Your task to perform on an android device: find photos in the google photos app Image 0: 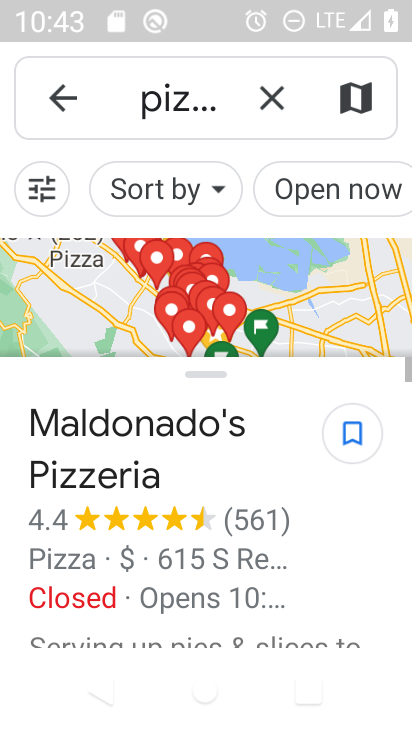
Step 0: press home button
Your task to perform on an android device: find photos in the google photos app Image 1: 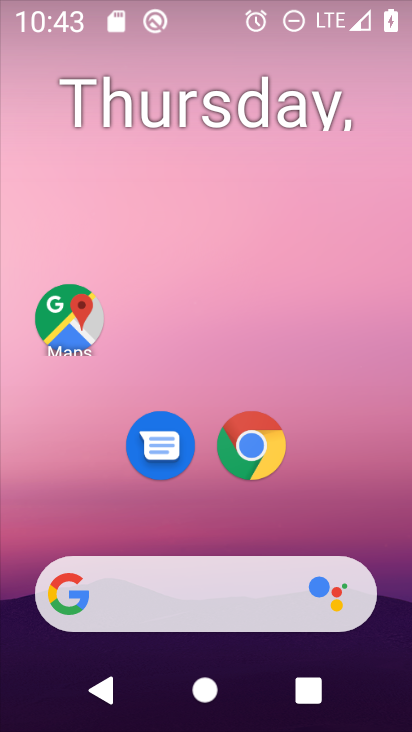
Step 1: drag from (398, 655) to (374, 30)
Your task to perform on an android device: find photos in the google photos app Image 2: 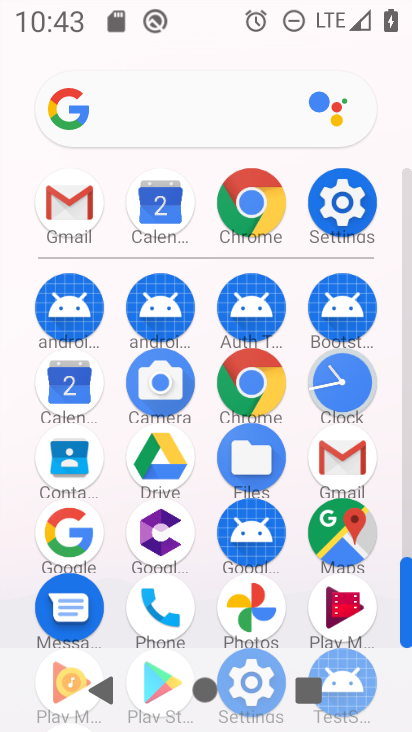
Step 2: click (241, 601)
Your task to perform on an android device: find photos in the google photos app Image 3: 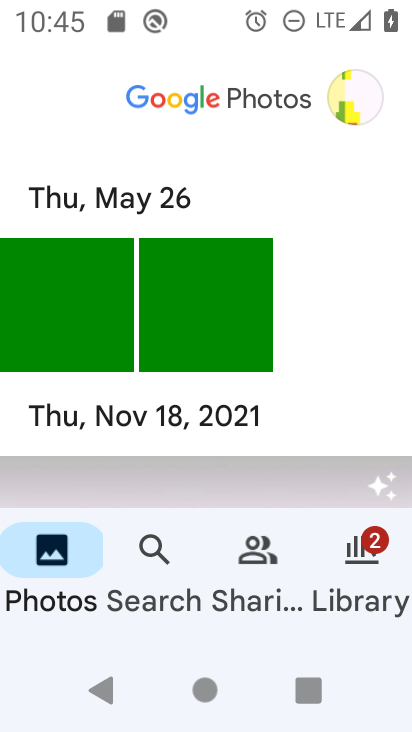
Step 3: task complete